Your task to perform on an android device: change alarm snooze length Image 0: 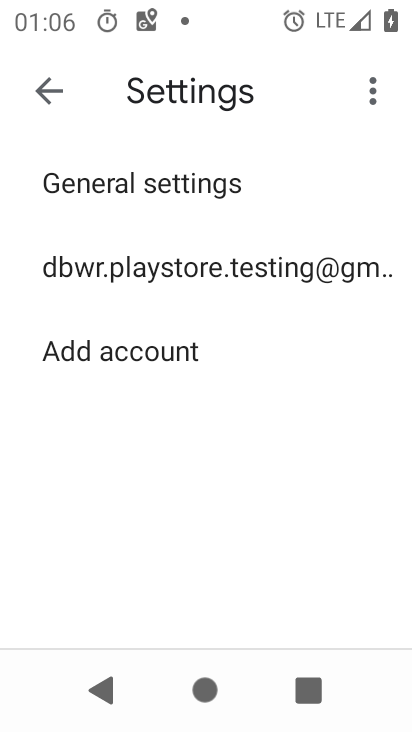
Step 0: press home button
Your task to perform on an android device: change alarm snooze length Image 1: 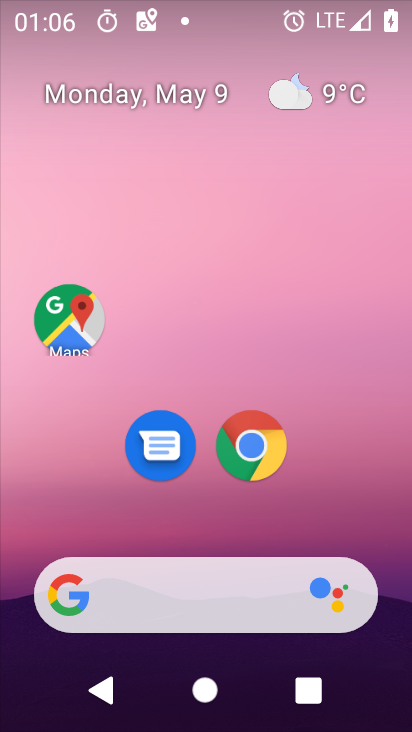
Step 1: drag from (346, 538) to (343, 42)
Your task to perform on an android device: change alarm snooze length Image 2: 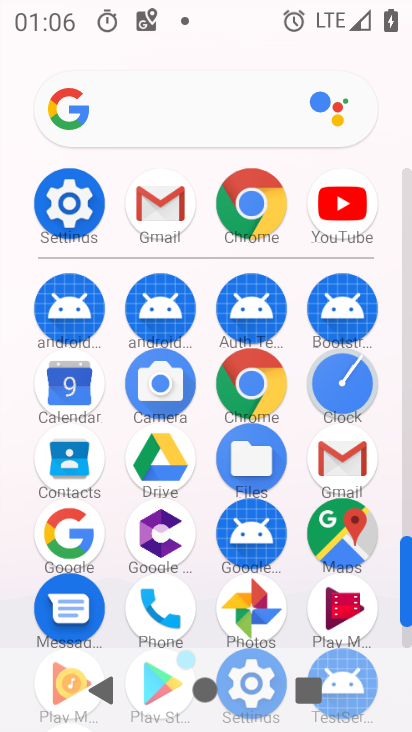
Step 2: click (329, 387)
Your task to perform on an android device: change alarm snooze length Image 3: 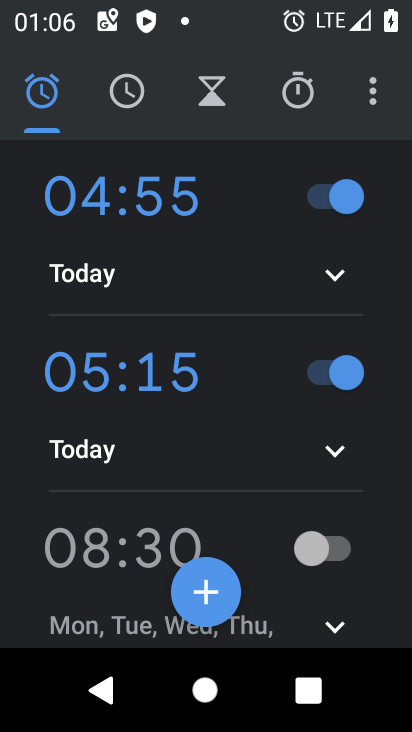
Step 3: click (375, 94)
Your task to perform on an android device: change alarm snooze length Image 4: 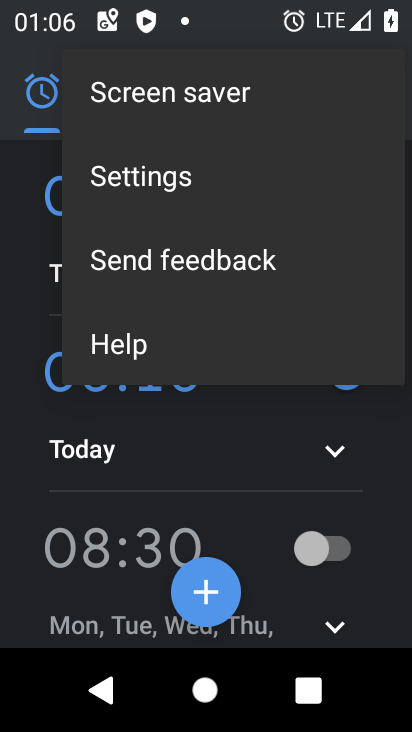
Step 4: click (170, 185)
Your task to perform on an android device: change alarm snooze length Image 5: 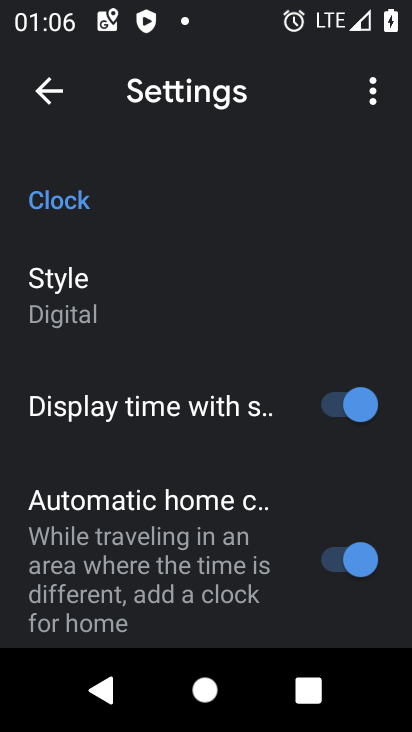
Step 5: drag from (203, 518) to (216, 174)
Your task to perform on an android device: change alarm snooze length Image 6: 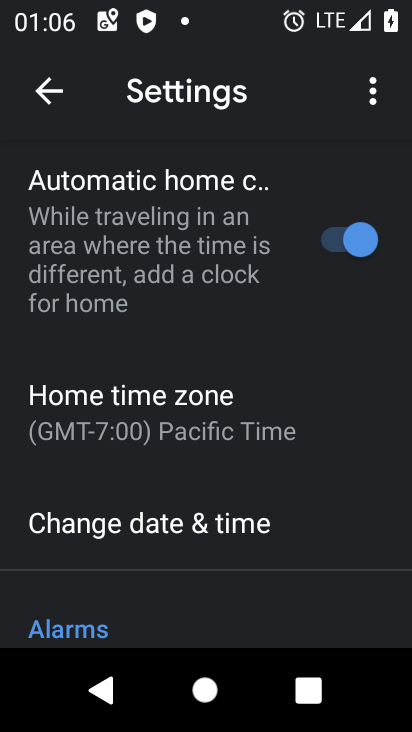
Step 6: drag from (198, 520) to (193, 208)
Your task to perform on an android device: change alarm snooze length Image 7: 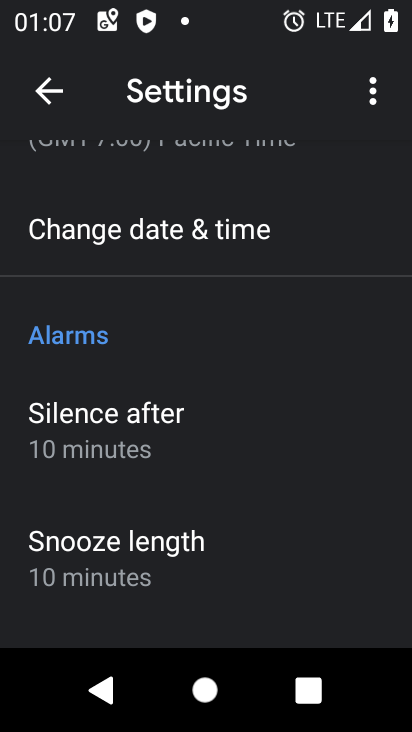
Step 7: click (135, 558)
Your task to perform on an android device: change alarm snooze length Image 8: 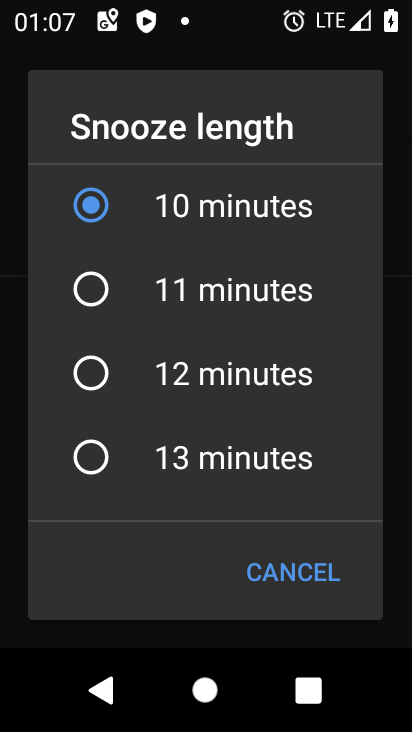
Step 8: click (88, 361)
Your task to perform on an android device: change alarm snooze length Image 9: 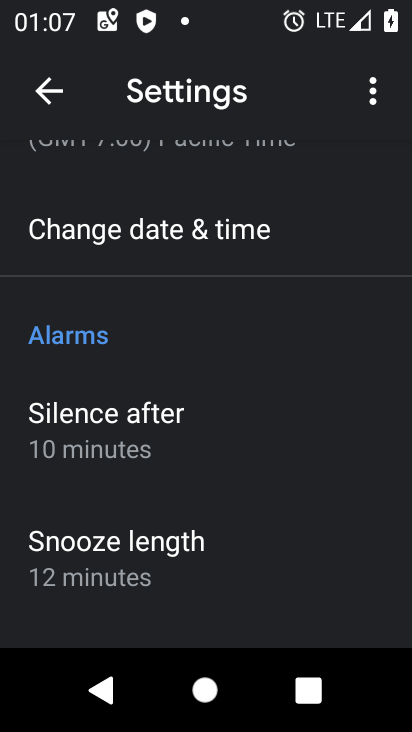
Step 9: task complete